Your task to perform on an android device: turn pop-ups off in chrome Image 0: 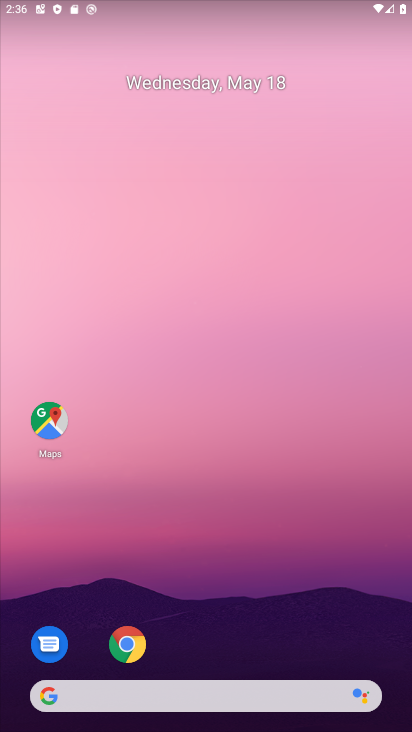
Step 0: click (134, 639)
Your task to perform on an android device: turn pop-ups off in chrome Image 1: 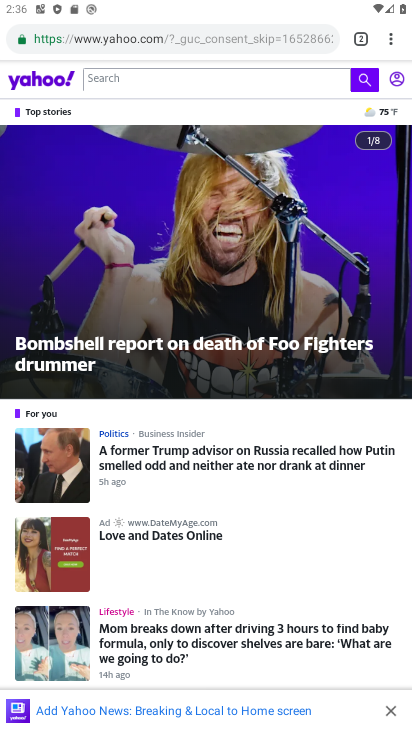
Step 1: click (391, 38)
Your task to perform on an android device: turn pop-ups off in chrome Image 2: 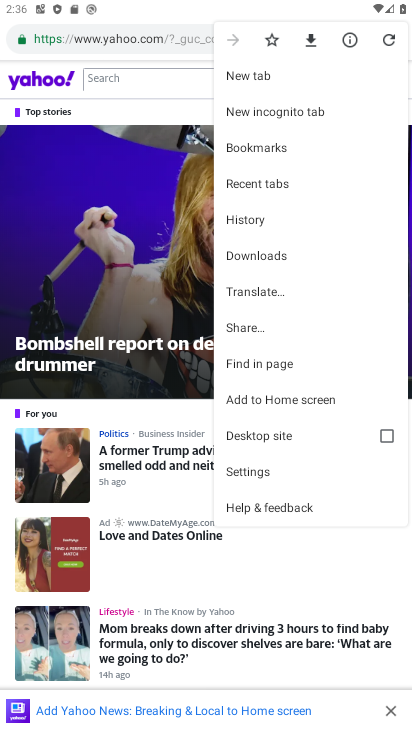
Step 2: click (267, 474)
Your task to perform on an android device: turn pop-ups off in chrome Image 3: 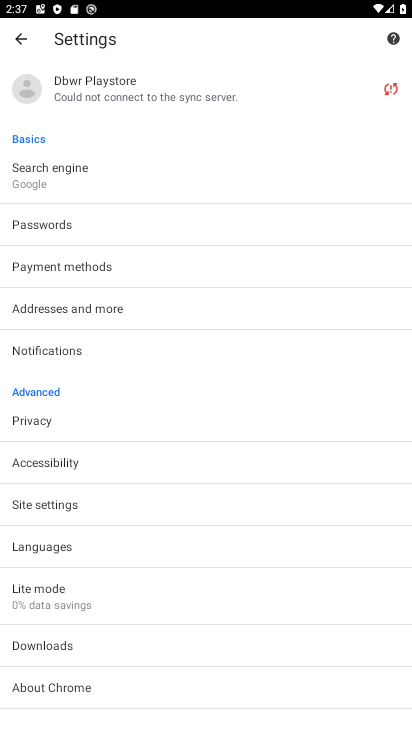
Step 3: click (81, 509)
Your task to perform on an android device: turn pop-ups off in chrome Image 4: 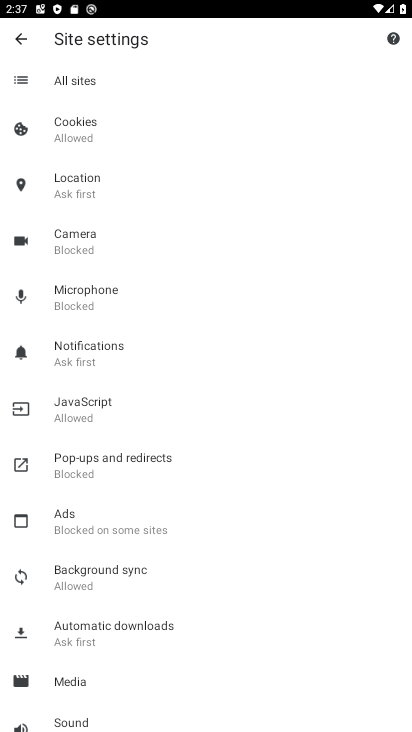
Step 4: click (91, 463)
Your task to perform on an android device: turn pop-ups off in chrome Image 5: 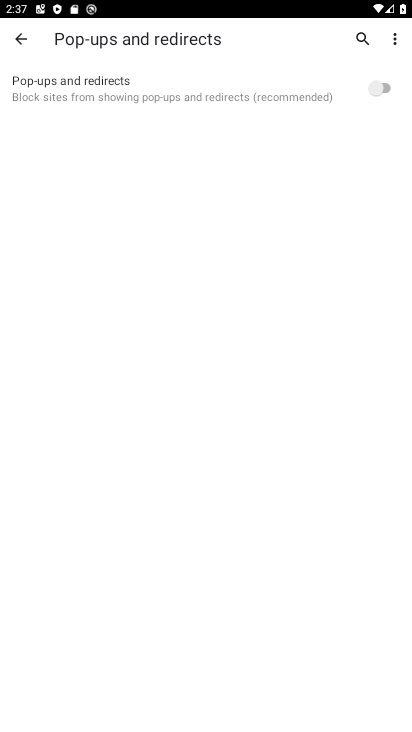
Step 5: task complete